Your task to perform on an android device: Open my contact list Image 0: 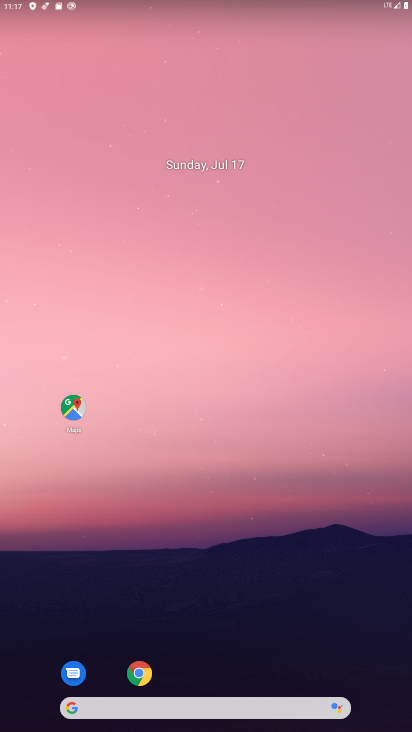
Step 0: drag from (241, 642) to (119, 160)
Your task to perform on an android device: Open my contact list Image 1: 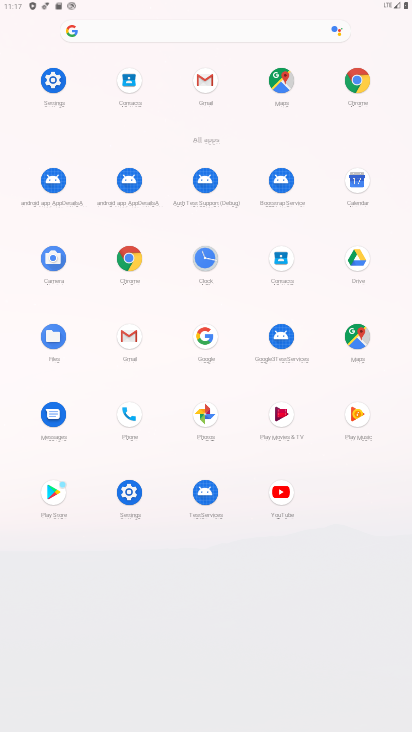
Step 1: click (273, 256)
Your task to perform on an android device: Open my contact list Image 2: 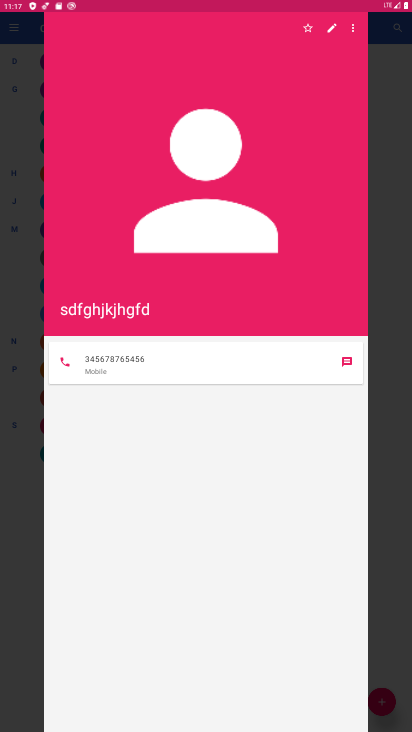
Step 2: task complete